Your task to perform on an android device: turn on data saver in the chrome app Image 0: 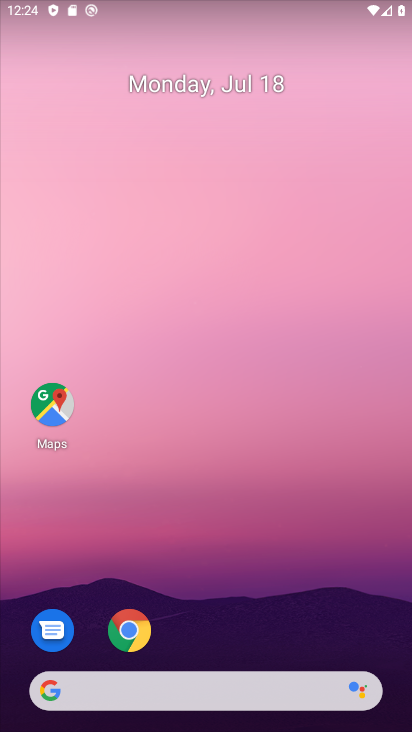
Step 0: drag from (235, 610) to (26, 91)
Your task to perform on an android device: turn on data saver in the chrome app Image 1: 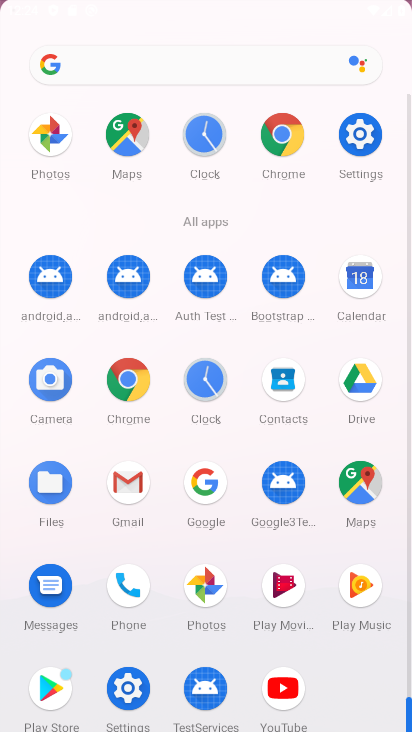
Step 1: drag from (79, 673) to (94, 113)
Your task to perform on an android device: turn on data saver in the chrome app Image 2: 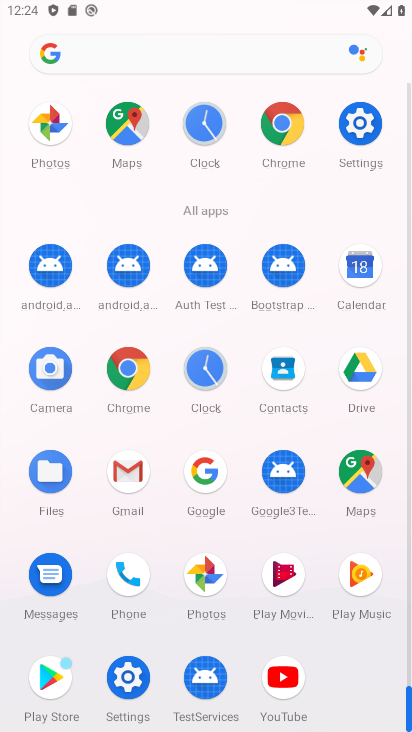
Step 2: click (371, 116)
Your task to perform on an android device: turn on data saver in the chrome app Image 3: 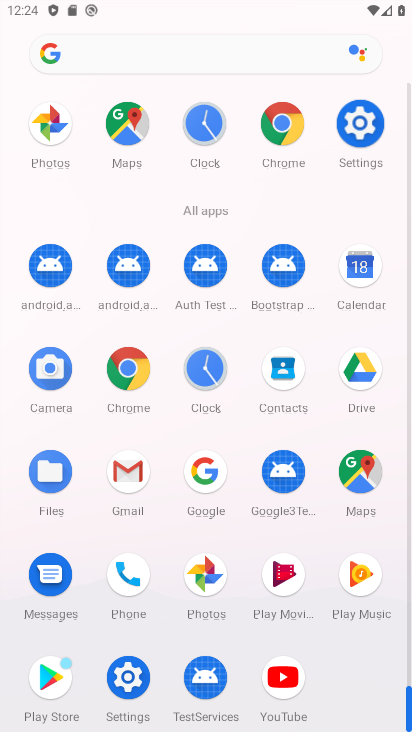
Step 3: click (375, 133)
Your task to perform on an android device: turn on data saver in the chrome app Image 4: 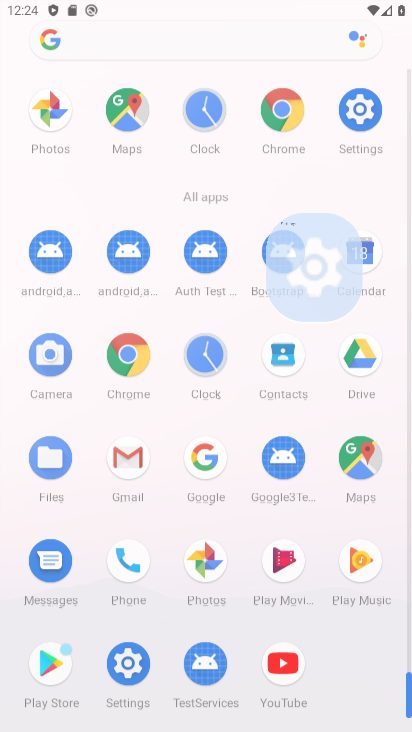
Step 4: click (387, 139)
Your task to perform on an android device: turn on data saver in the chrome app Image 5: 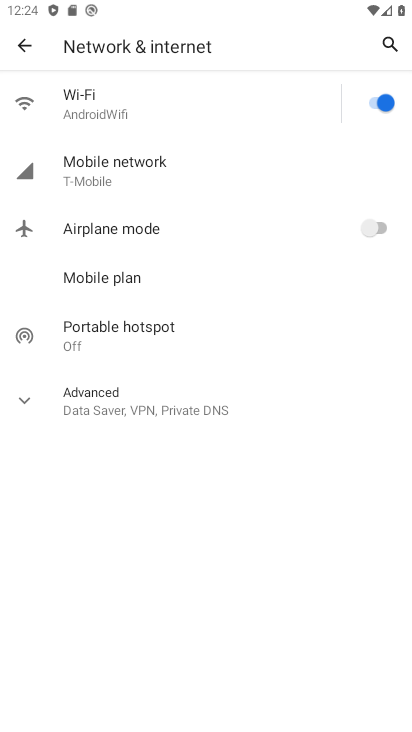
Step 5: click (30, 48)
Your task to perform on an android device: turn on data saver in the chrome app Image 6: 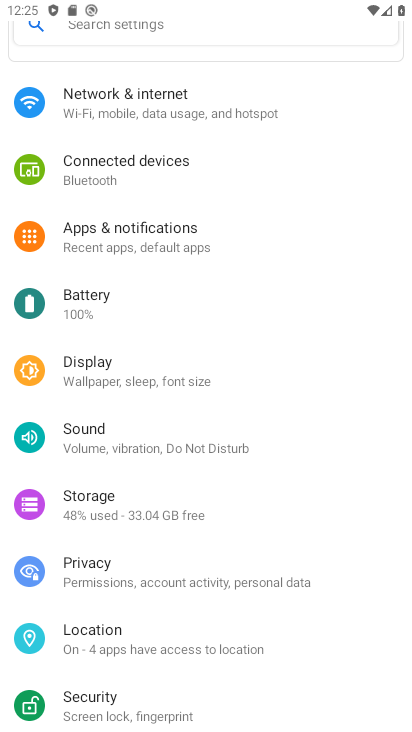
Step 6: click (160, 111)
Your task to perform on an android device: turn on data saver in the chrome app Image 7: 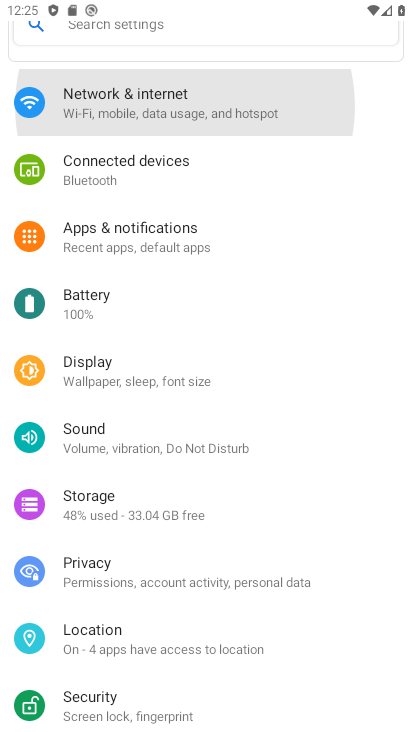
Step 7: click (160, 111)
Your task to perform on an android device: turn on data saver in the chrome app Image 8: 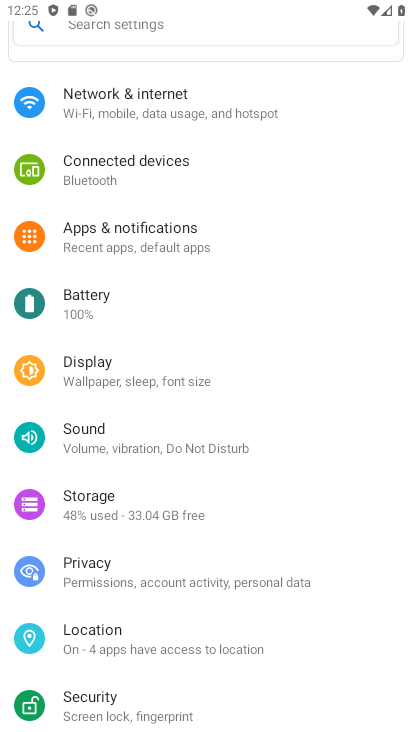
Step 8: click (161, 126)
Your task to perform on an android device: turn on data saver in the chrome app Image 9: 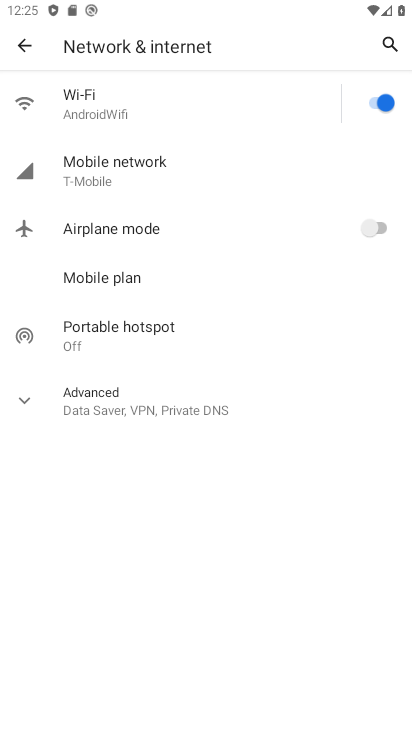
Step 9: task complete